Your task to perform on an android device: Search for "bose quietcomfort 35" on walmart, select the first entry, and add it to the cart. Image 0: 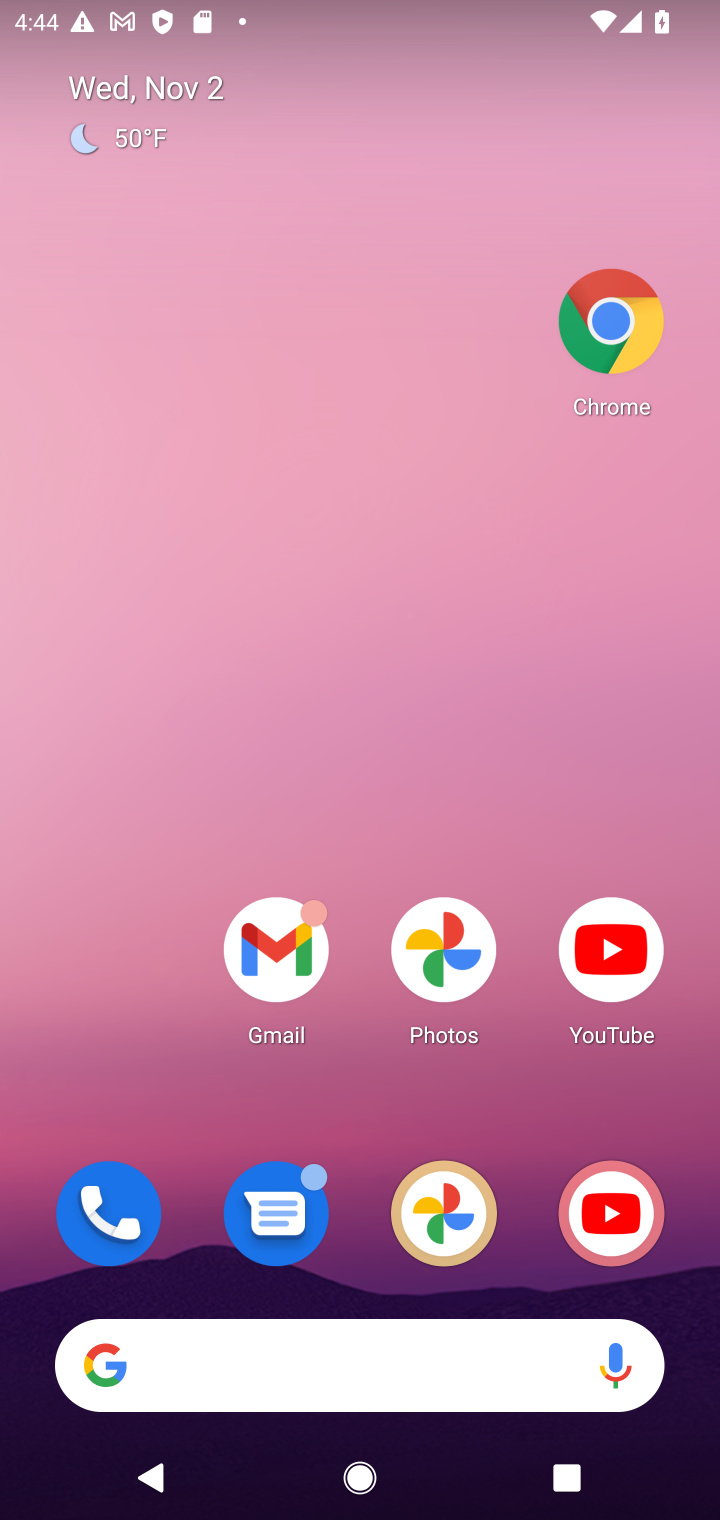
Step 0: drag from (205, 1004) to (398, 346)
Your task to perform on an android device: Search for "bose quietcomfort 35" on walmart, select the first entry, and add it to the cart. Image 1: 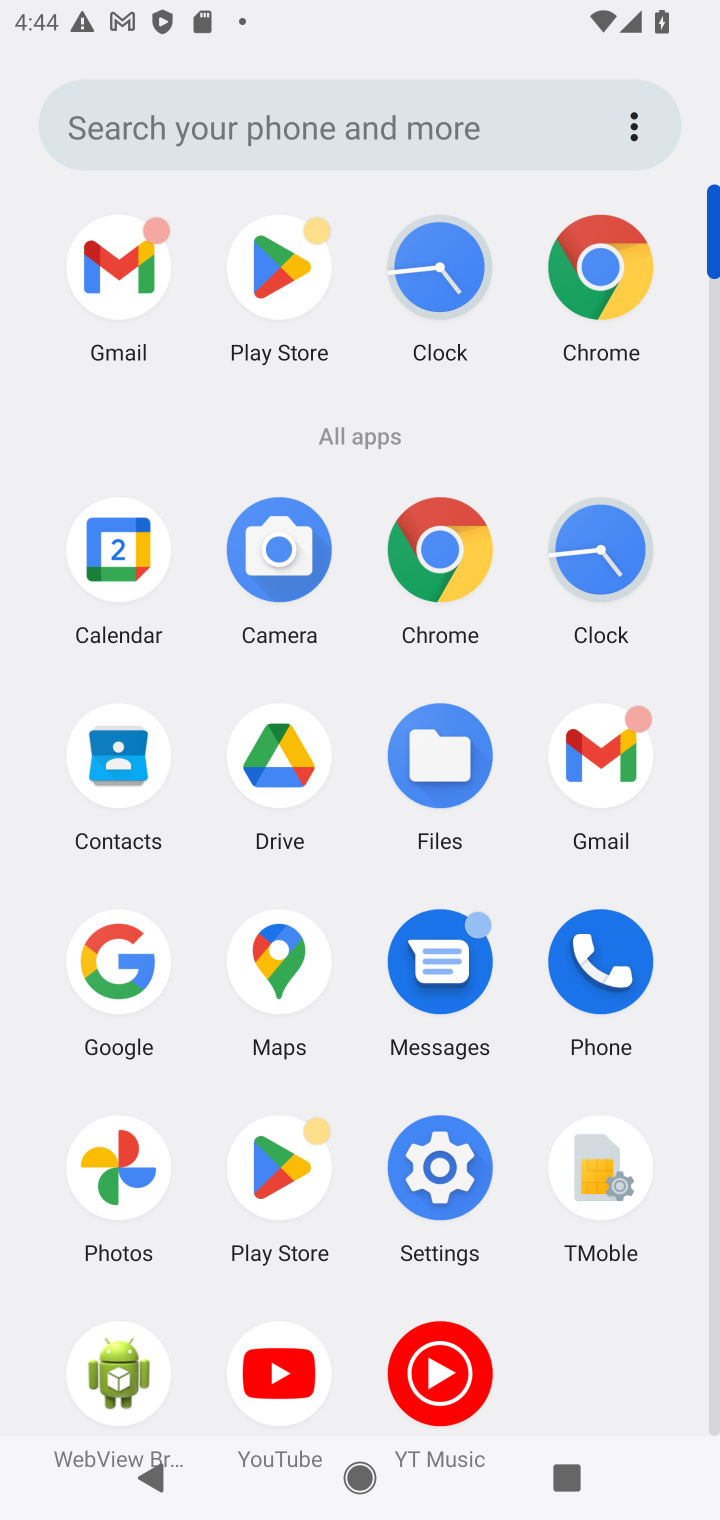
Step 1: click (88, 960)
Your task to perform on an android device: Search for "bose quietcomfort 35" on walmart, select the first entry, and add it to the cart. Image 2: 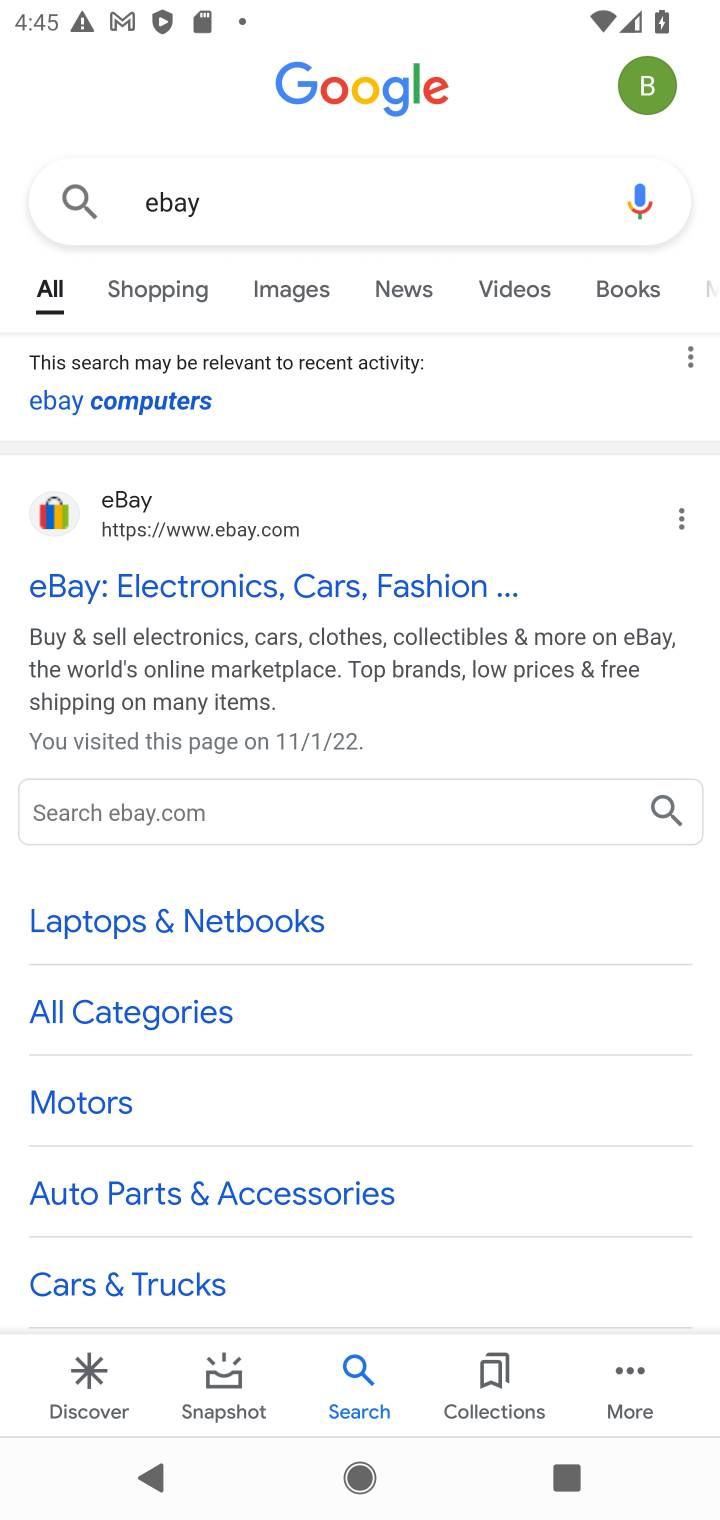
Step 2: click (177, 602)
Your task to perform on an android device: Search for "bose quietcomfort 35" on walmart, select the first entry, and add it to the cart. Image 3: 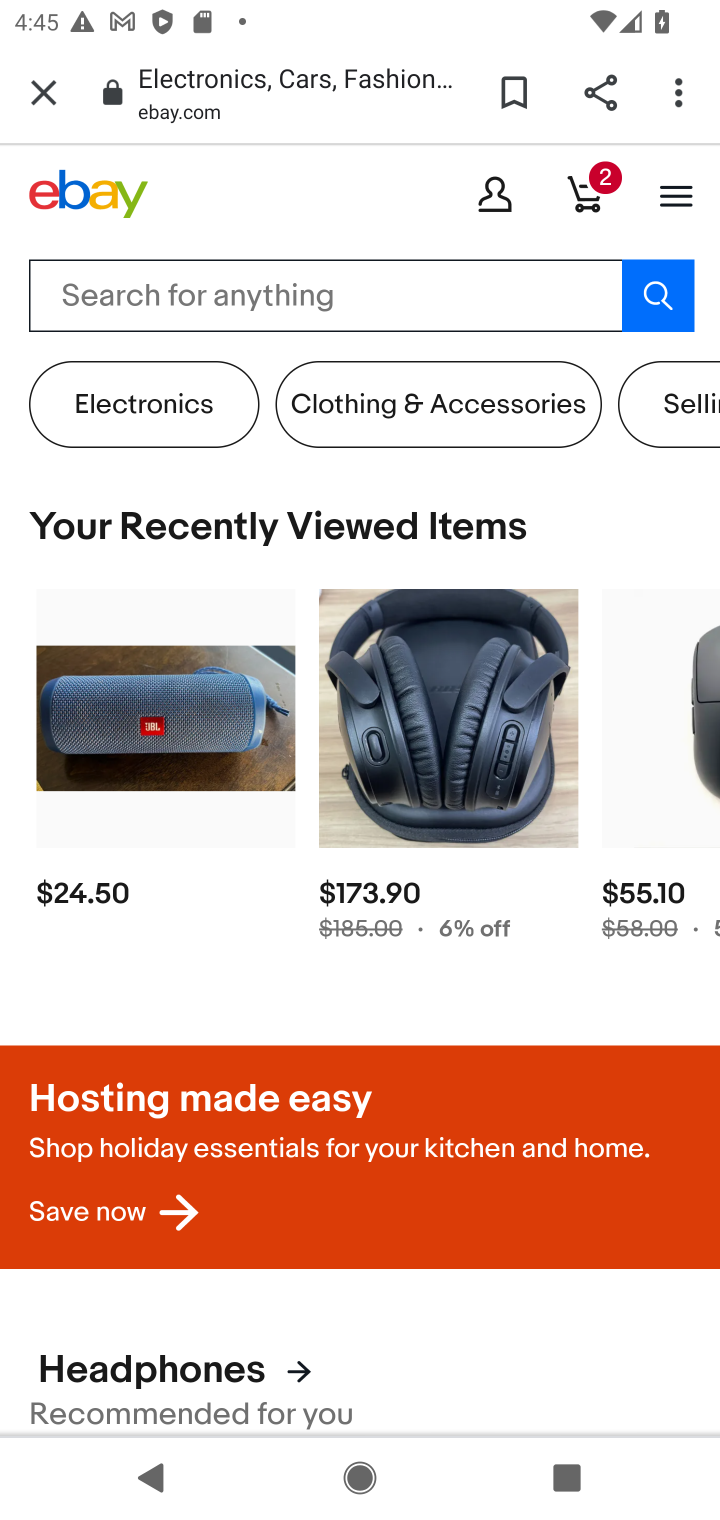
Step 3: click (49, 101)
Your task to perform on an android device: Search for "bose quietcomfort 35" on walmart, select the first entry, and add it to the cart. Image 4: 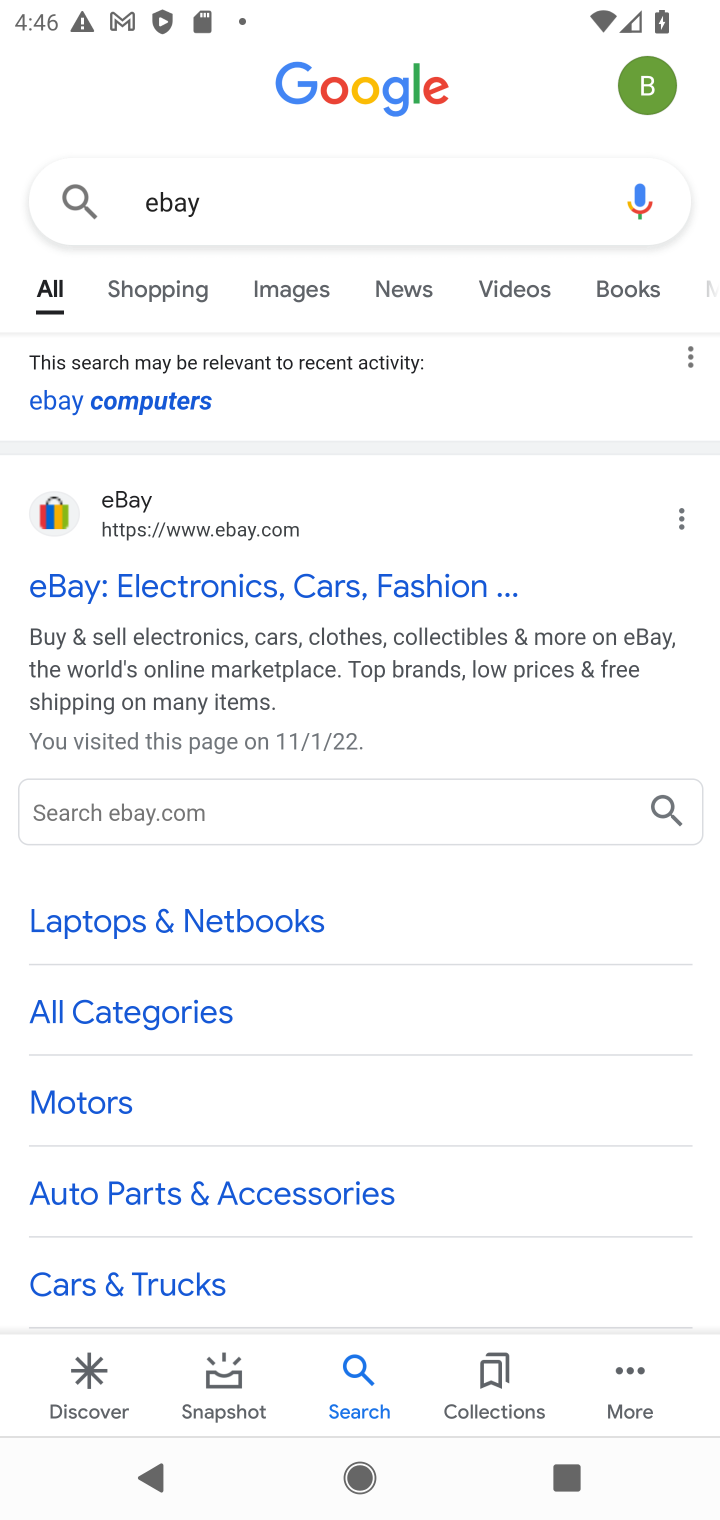
Step 4: click (272, 214)
Your task to perform on an android device: Search for "bose quietcomfort 35" on walmart, select the first entry, and add it to the cart. Image 5: 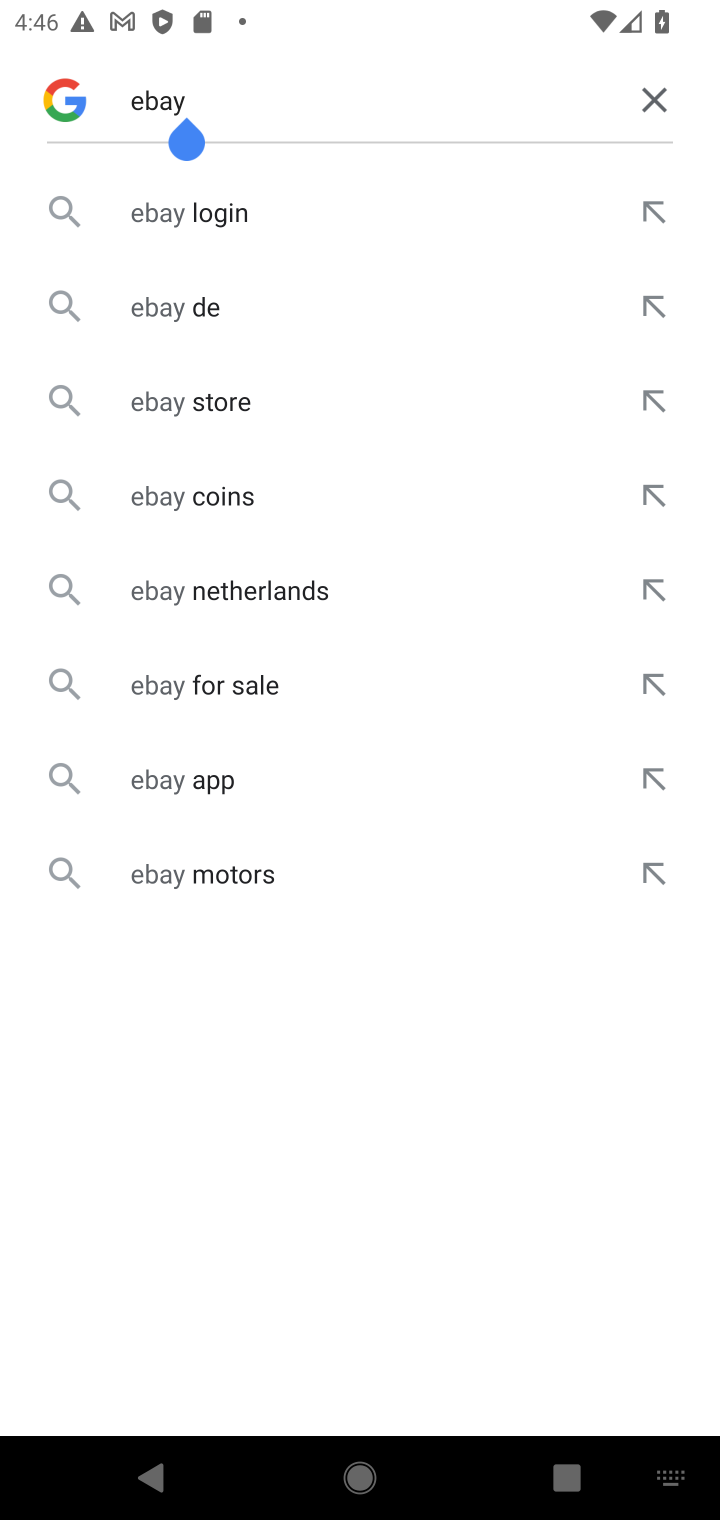
Step 5: click (639, 96)
Your task to perform on an android device: Search for "bose quietcomfort 35" on walmart, select the first entry, and add it to the cart. Image 6: 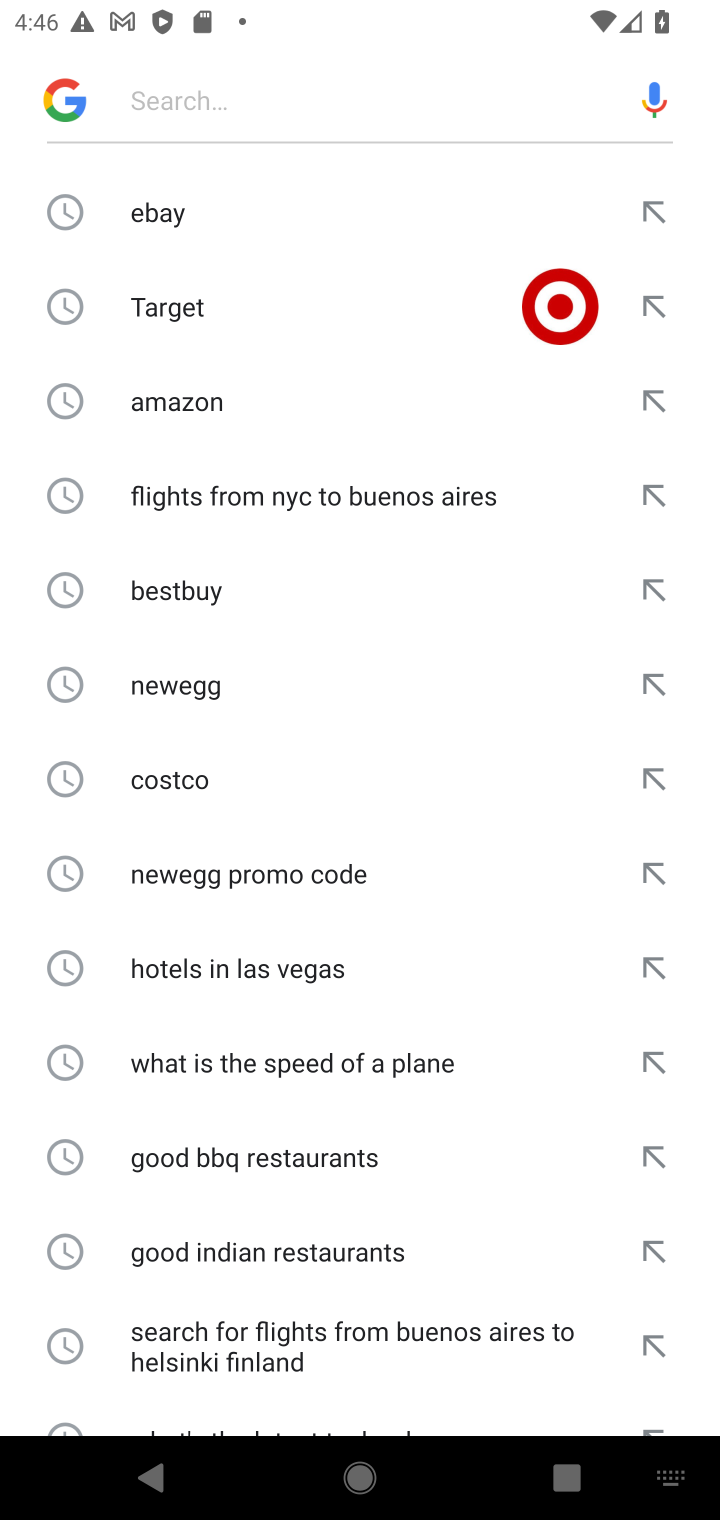
Step 6: type "walmart"
Your task to perform on an android device: Search for "bose quietcomfort 35" on walmart, select the first entry, and add it to the cart. Image 7: 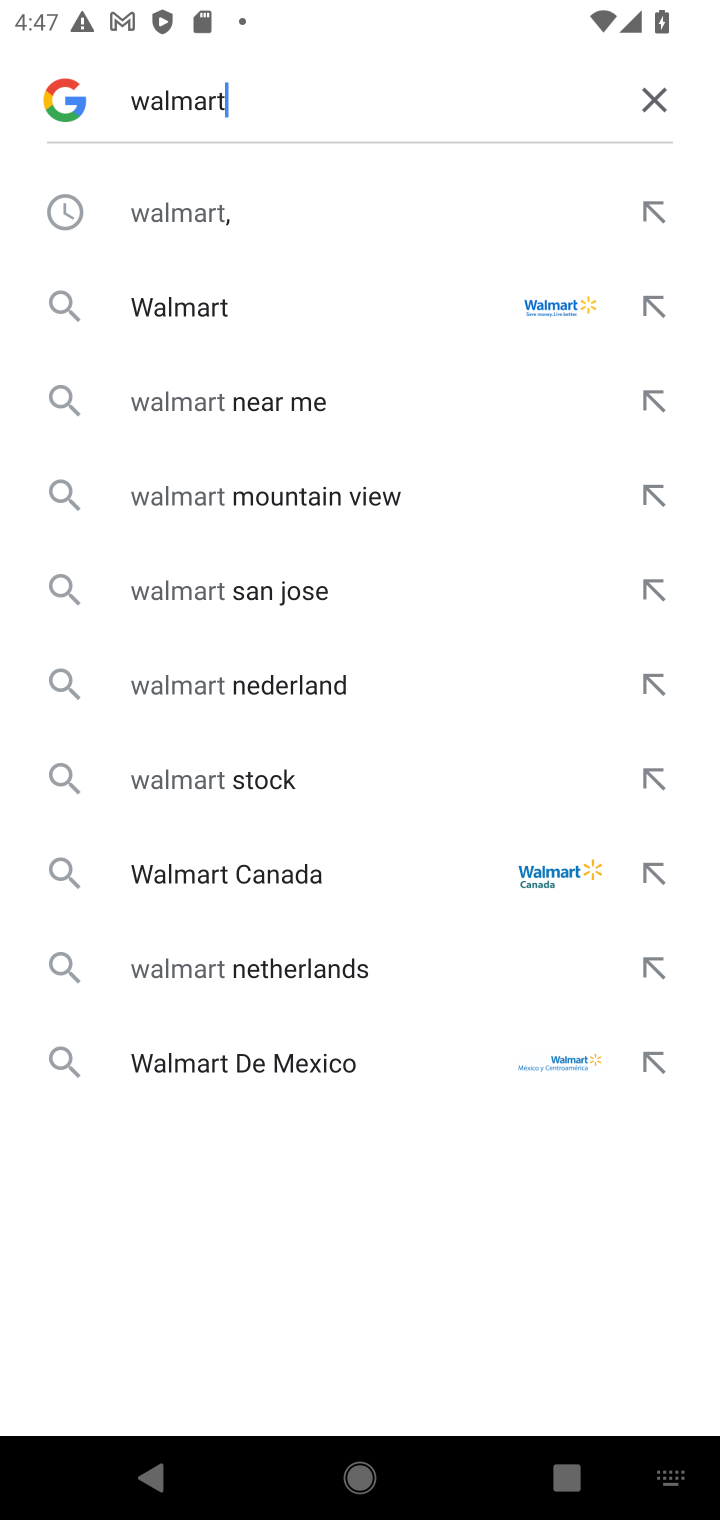
Step 7: click (395, 205)
Your task to perform on an android device: Search for "bose quietcomfort 35" on walmart, select the first entry, and add it to the cart. Image 8: 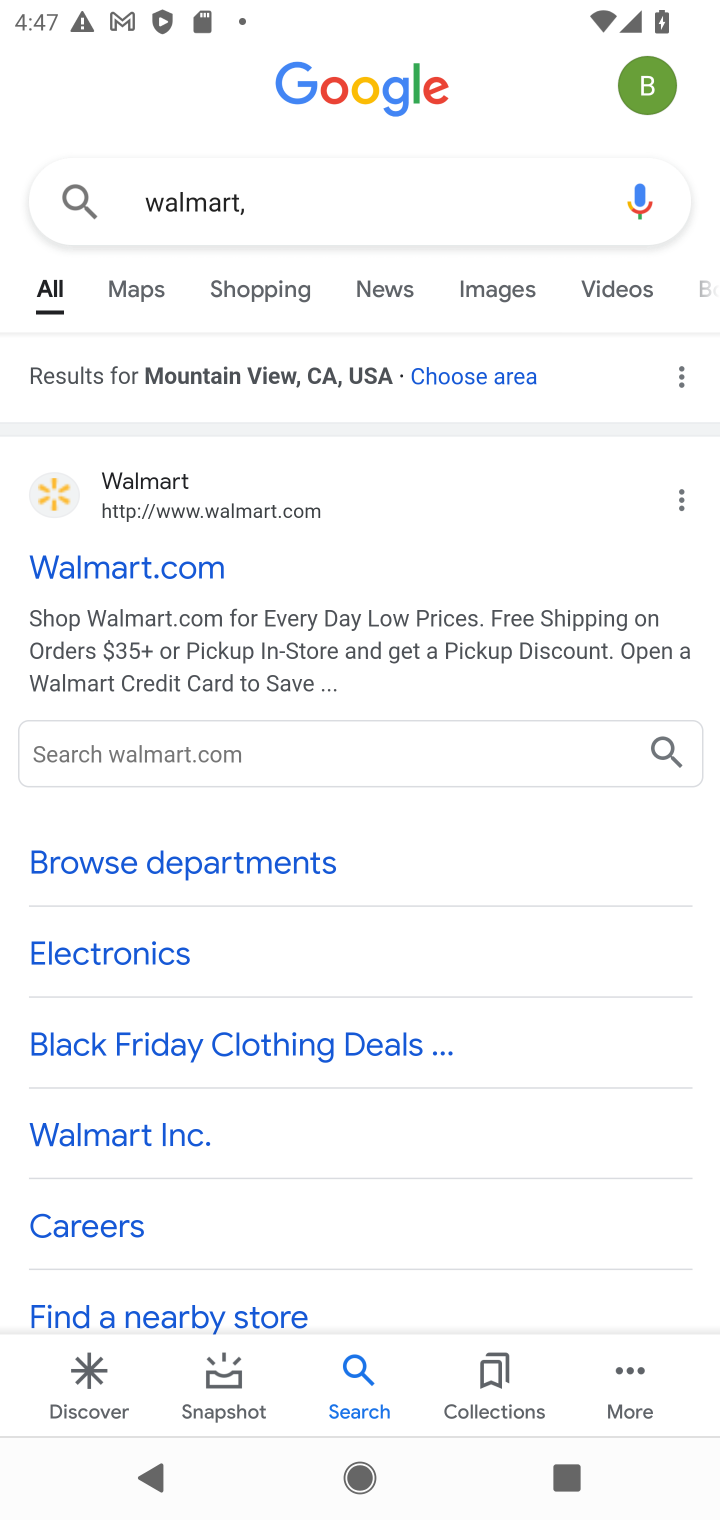
Step 8: click (104, 577)
Your task to perform on an android device: Search for "bose quietcomfort 35" on walmart, select the first entry, and add it to the cart. Image 9: 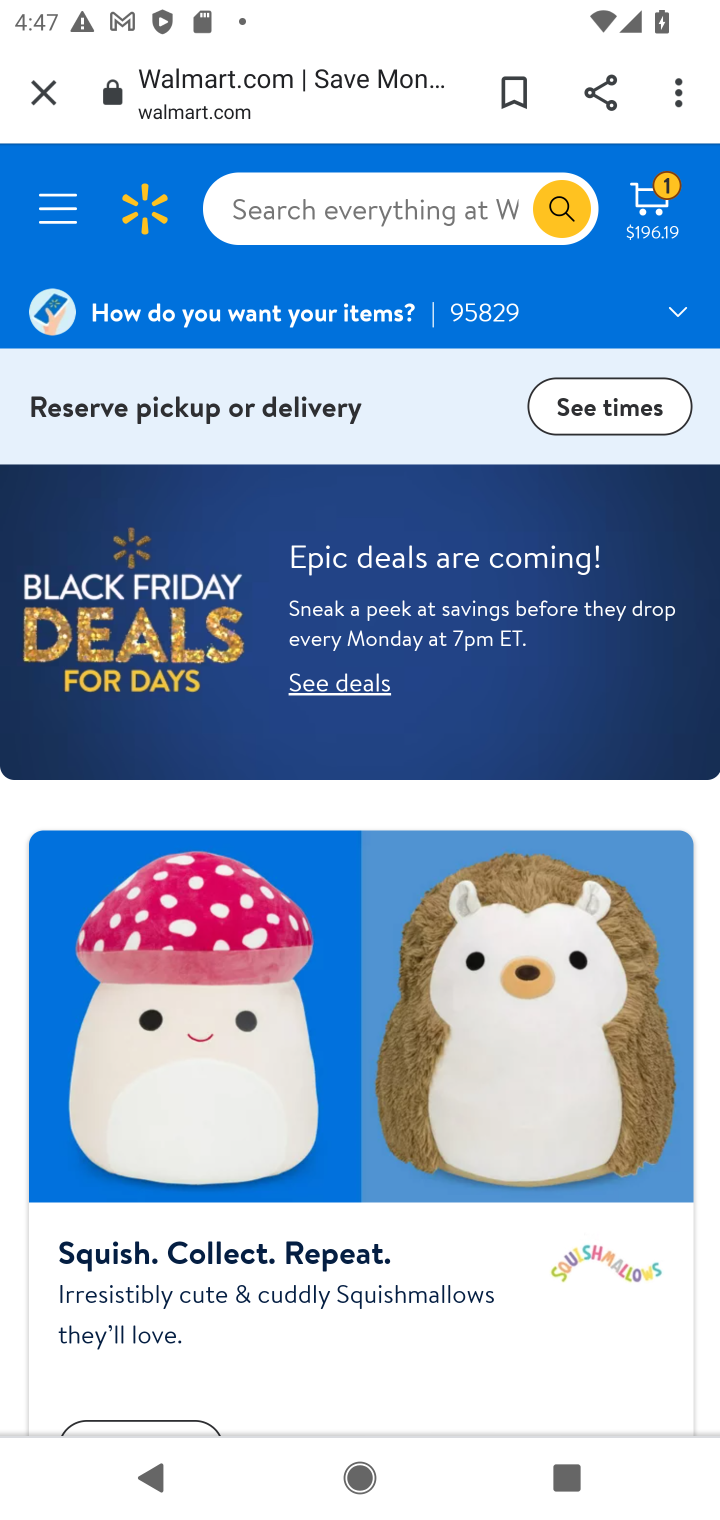
Step 9: click (403, 209)
Your task to perform on an android device: Search for "bose quietcomfort 35" on walmart, select the first entry, and add it to the cart. Image 10: 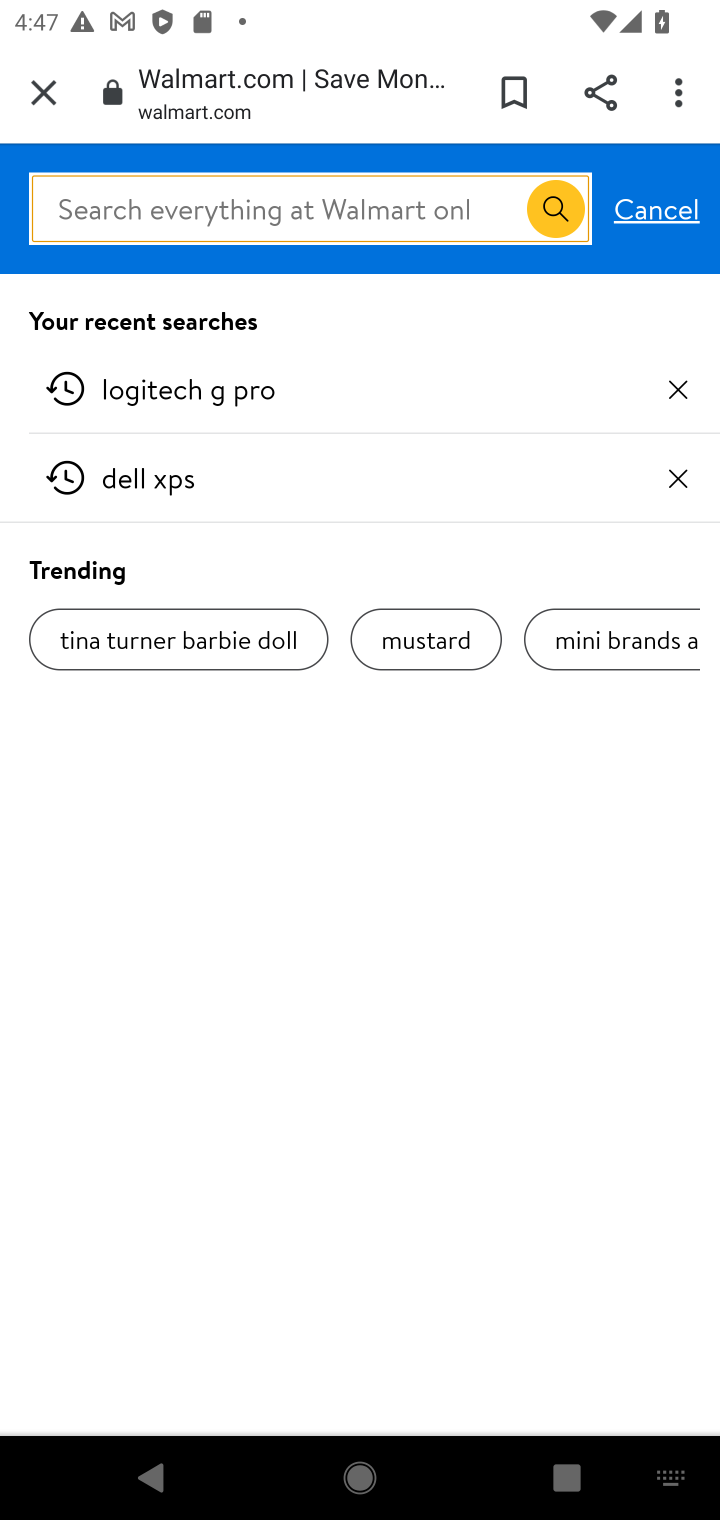
Step 10: type "bose quietcomfort 35"
Your task to perform on an android device: Search for "bose quietcomfort 35" on walmart, select the first entry, and add it to the cart. Image 11: 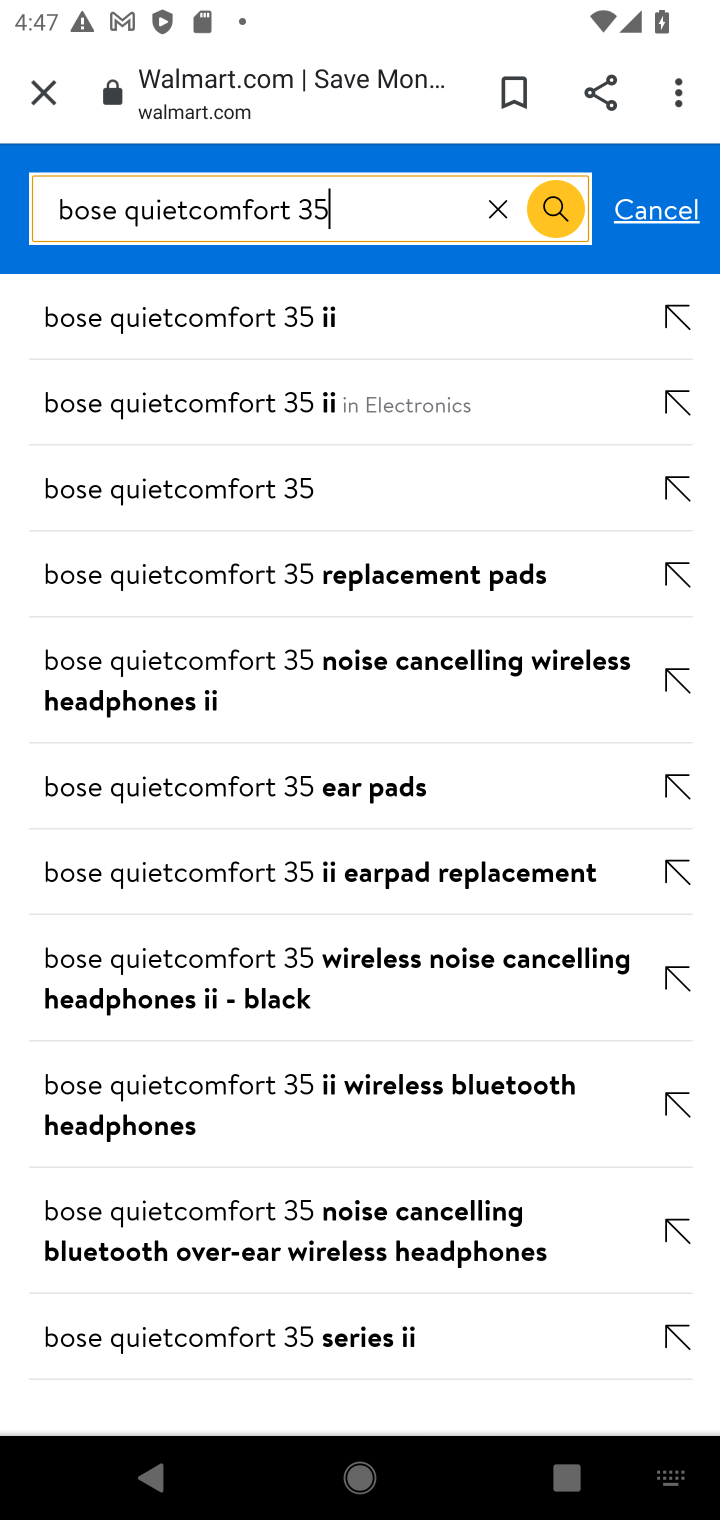
Step 11: click (283, 487)
Your task to perform on an android device: Search for "bose quietcomfort 35" on walmart, select the first entry, and add it to the cart. Image 12: 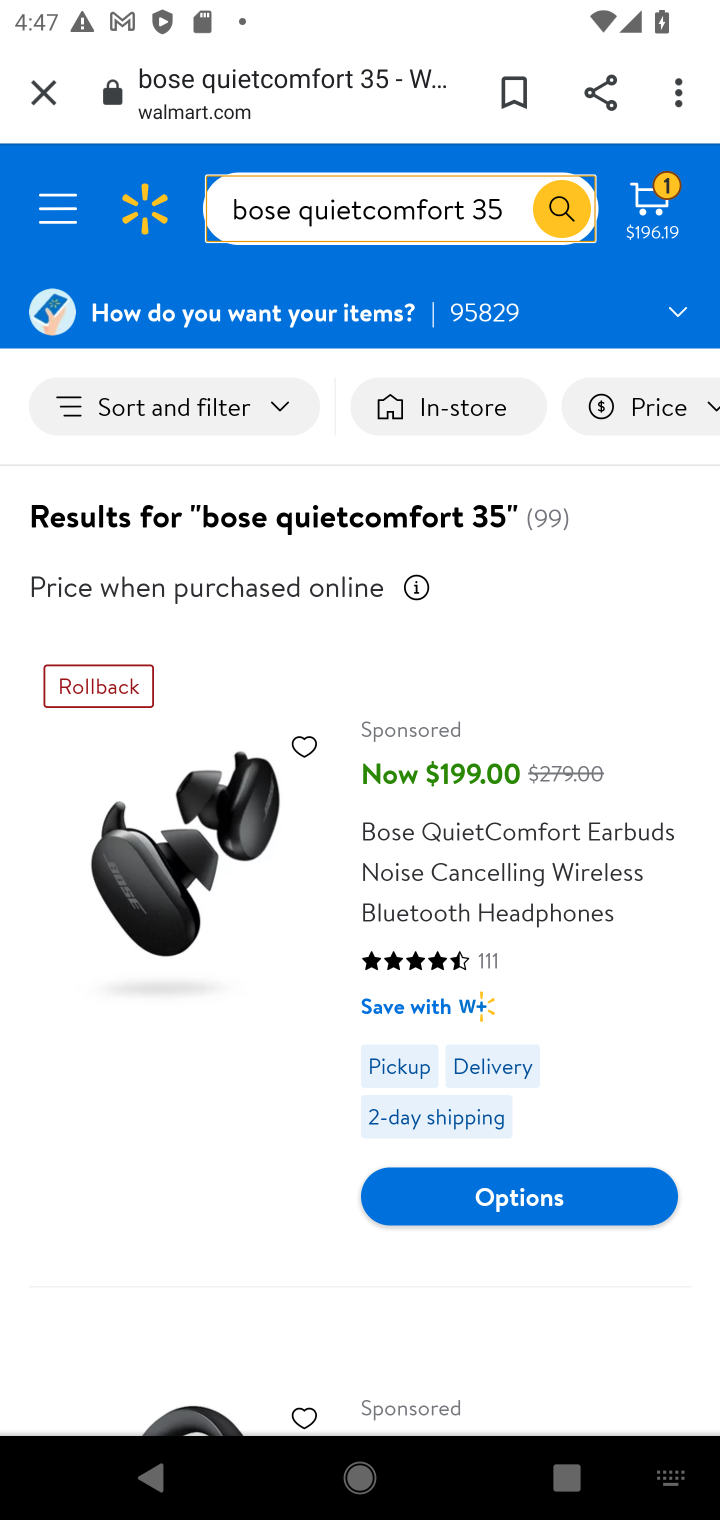
Step 12: drag from (489, 1035) to (646, 159)
Your task to perform on an android device: Search for "bose quietcomfort 35" on walmart, select the first entry, and add it to the cart. Image 13: 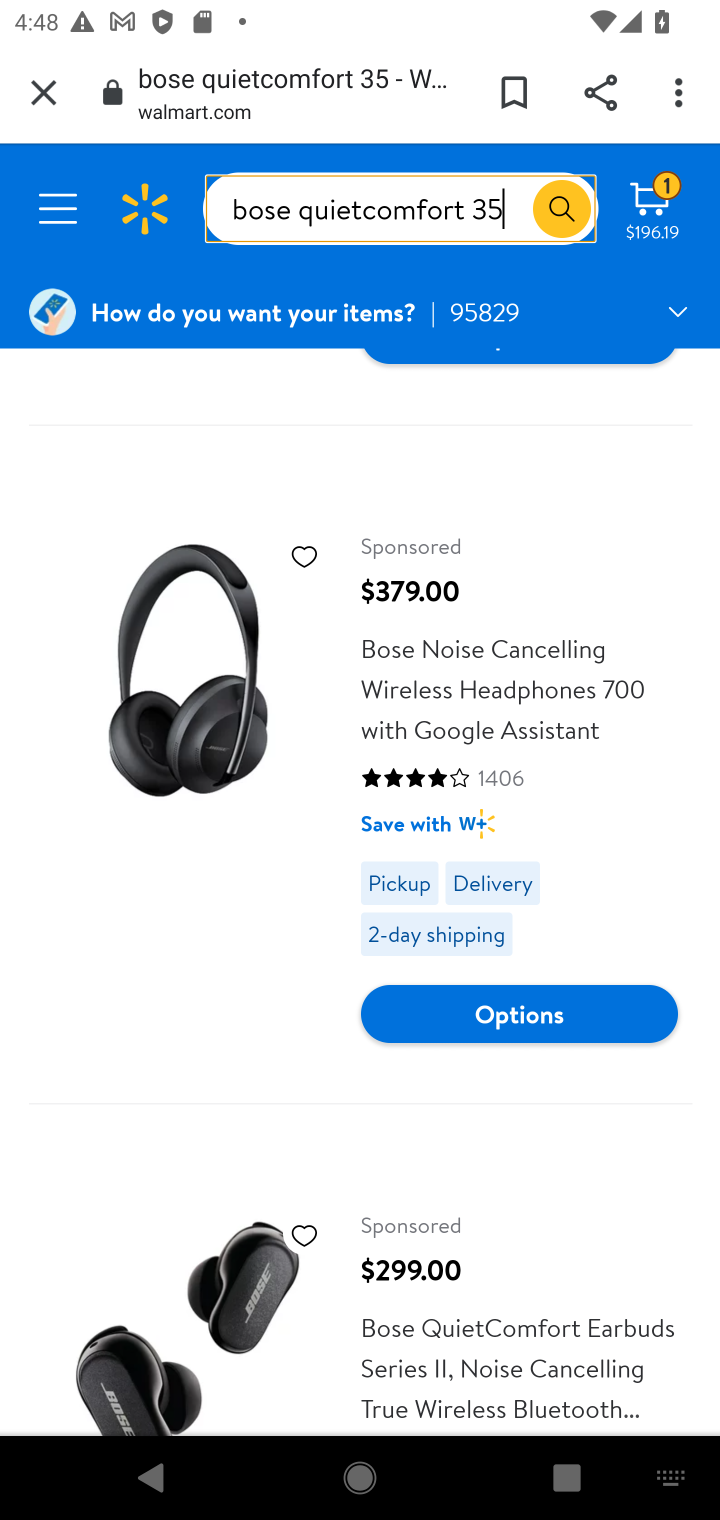
Step 13: drag from (596, 789) to (596, 296)
Your task to perform on an android device: Search for "bose quietcomfort 35" on walmart, select the first entry, and add it to the cart. Image 14: 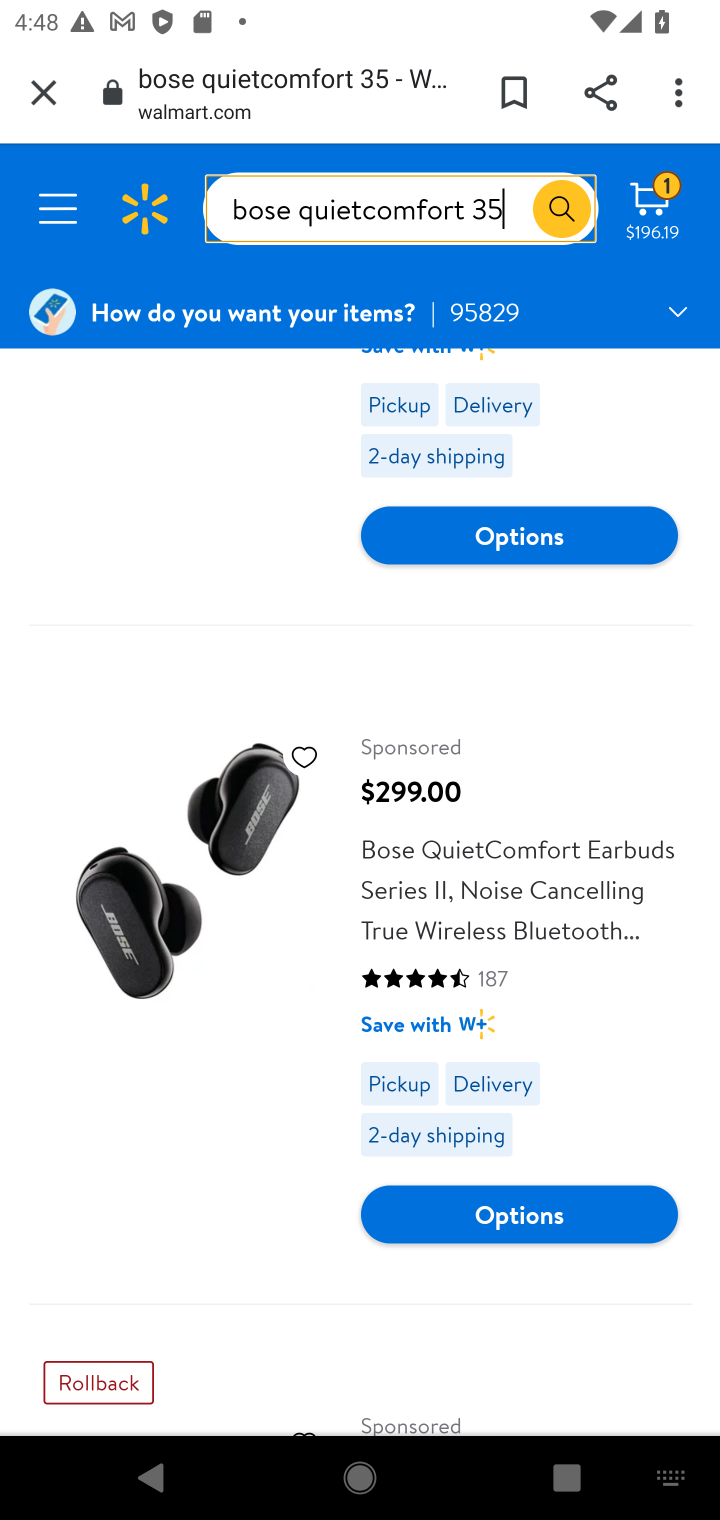
Step 14: drag from (591, 473) to (617, 634)
Your task to perform on an android device: Search for "bose quietcomfort 35" on walmart, select the first entry, and add it to the cart. Image 15: 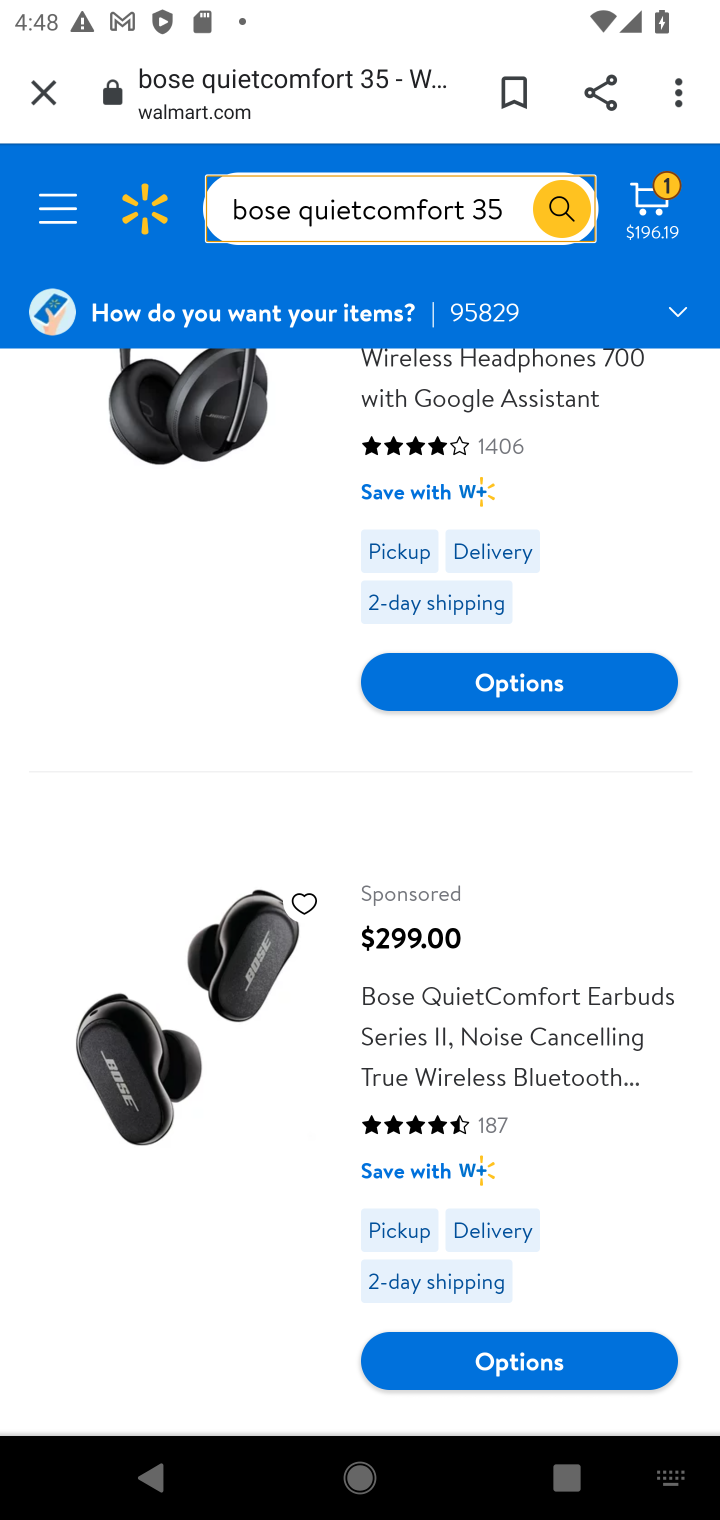
Step 15: drag from (591, 532) to (599, 1077)
Your task to perform on an android device: Search for "bose quietcomfort 35" on walmart, select the first entry, and add it to the cart. Image 16: 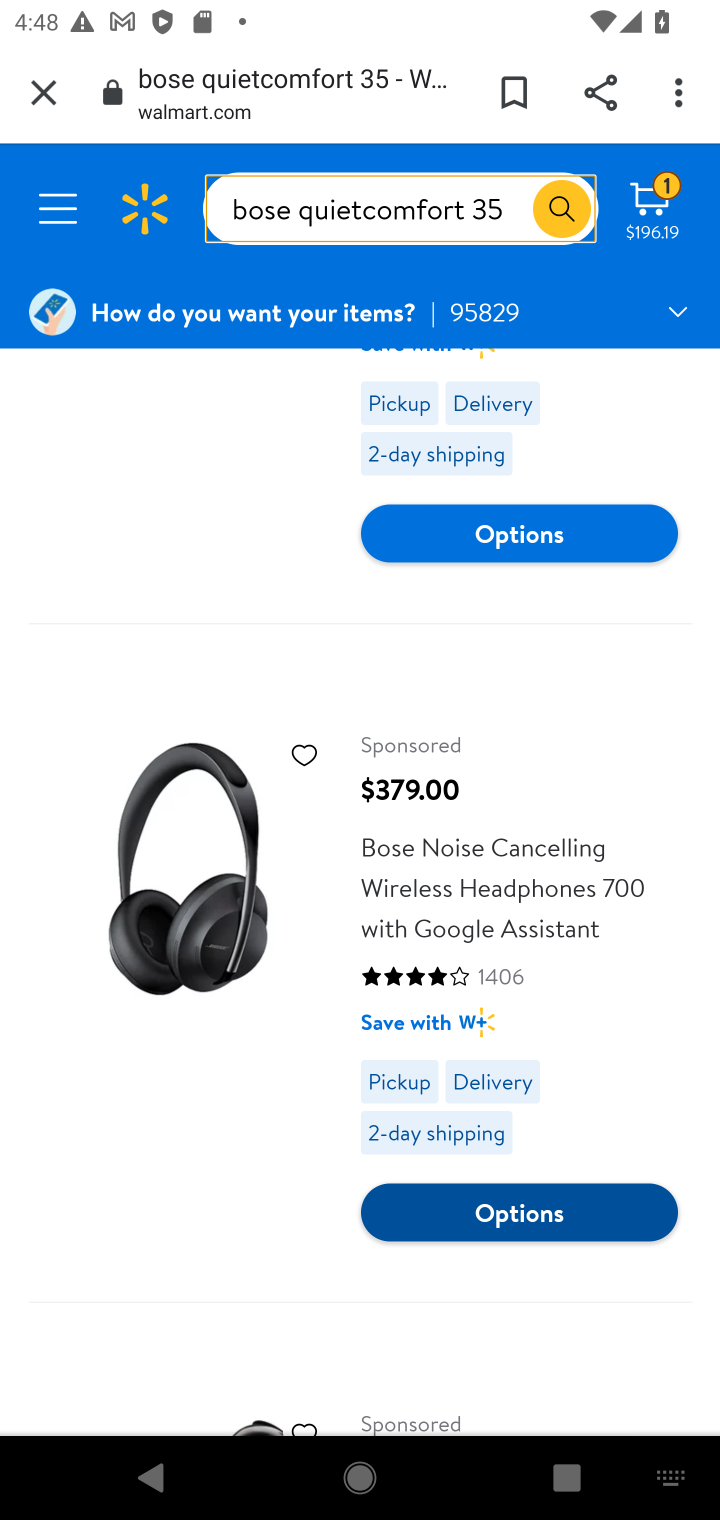
Step 16: drag from (541, 586) to (640, 1305)
Your task to perform on an android device: Search for "bose quietcomfort 35" on walmart, select the first entry, and add it to the cart. Image 17: 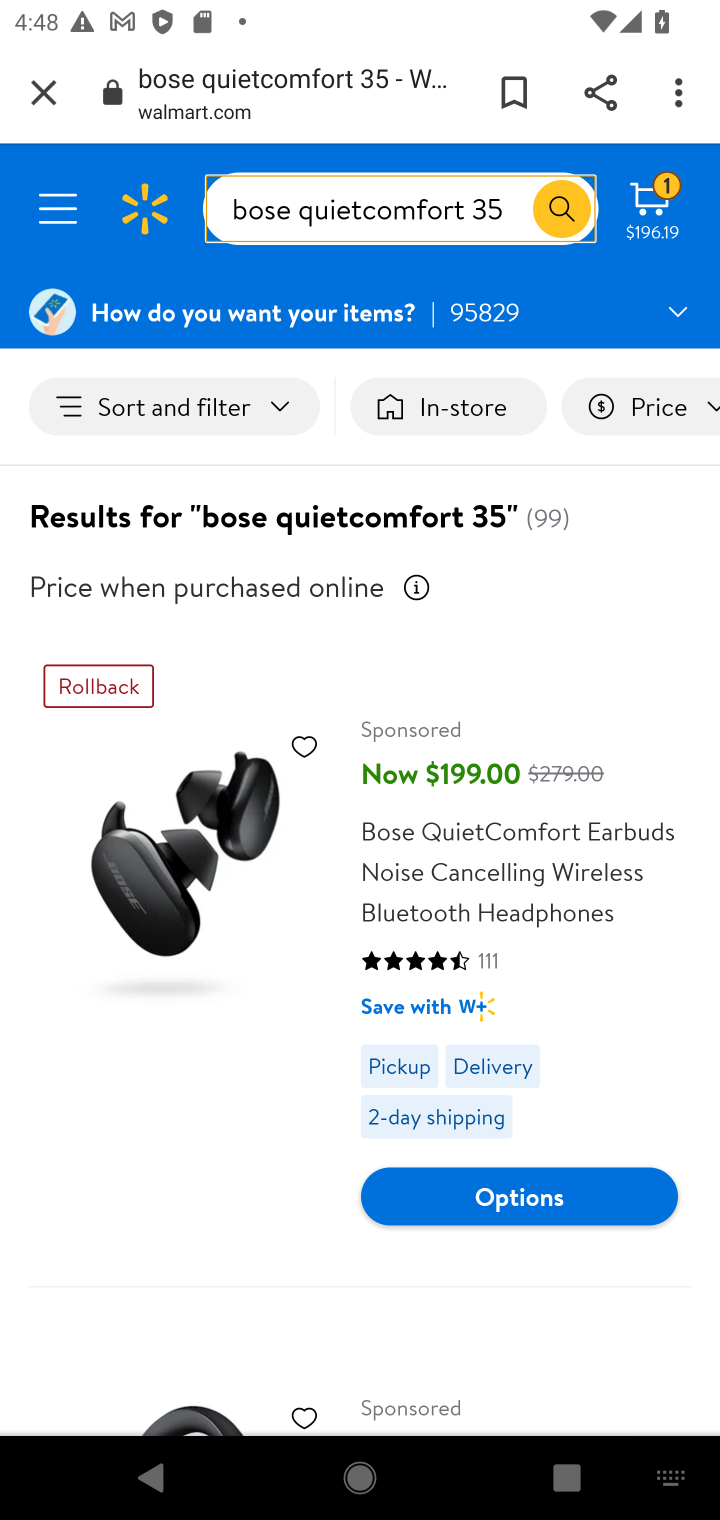
Step 17: click (564, 1166)
Your task to perform on an android device: Search for "bose quietcomfort 35" on walmart, select the first entry, and add it to the cart. Image 18: 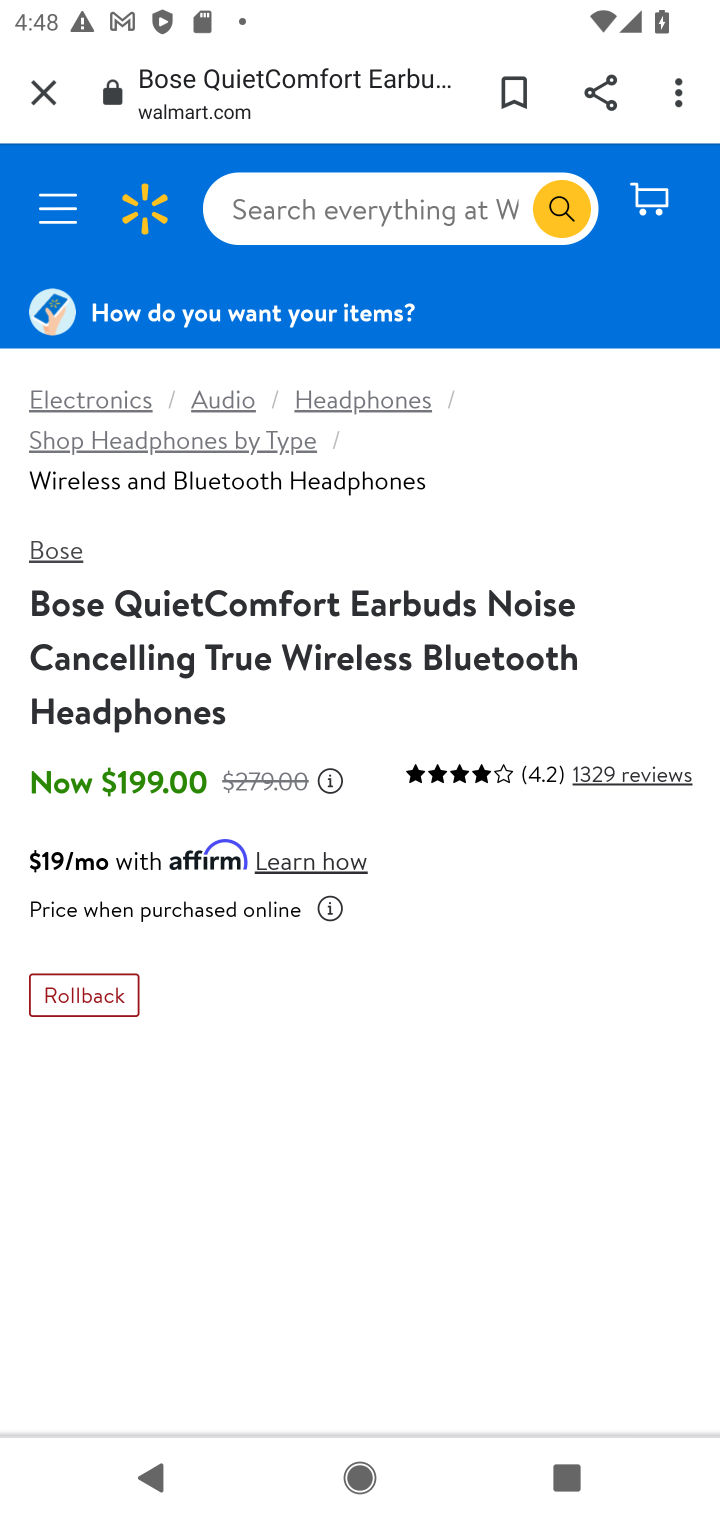
Step 18: drag from (564, 1166) to (663, 595)
Your task to perform on an android device: Search for "bose quietcomfort 35" on walmart, select the first entry, and add it to the cart. Image 19: 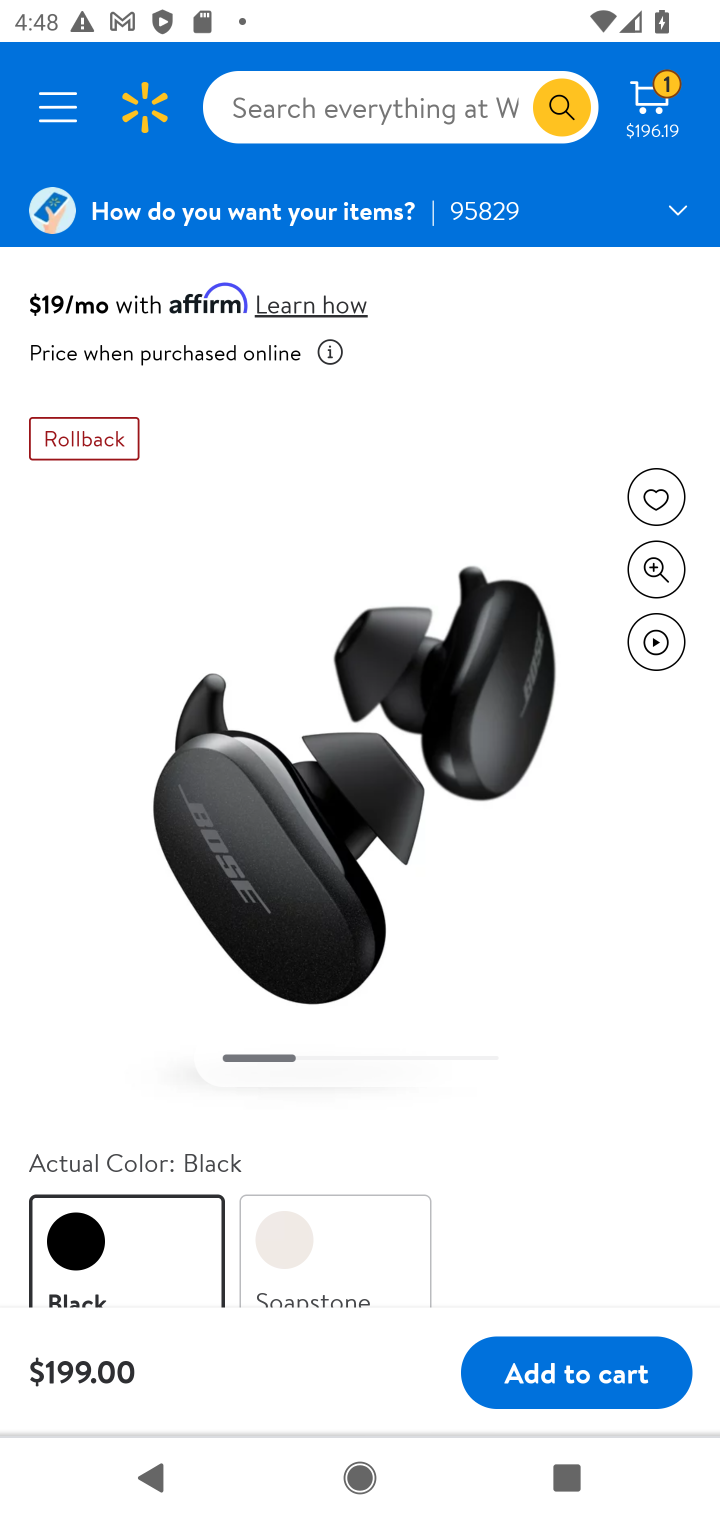
Step 19: click (601, 1358)
Your task to perform on an android device: Search for "bose quietcomfort 35" on walmart, select the first entry, and add it to the cart. Image 20: 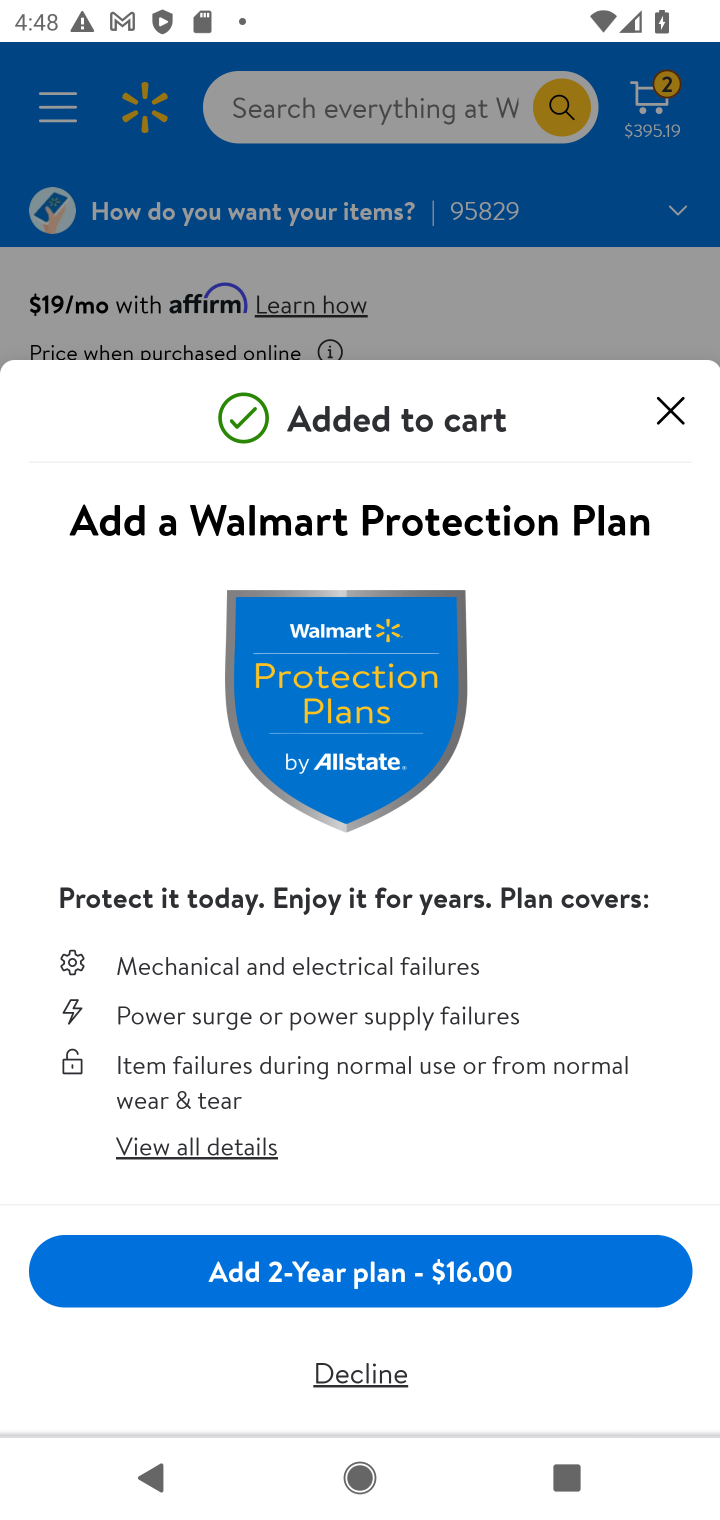
Step 20: task complete